Your task to perform on an android device: change the clock style Image 0: 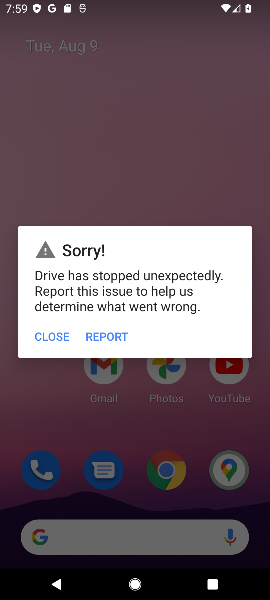
Step 0: click (69, 415)
Your task to perform on an android device: change the clock style Image 1: 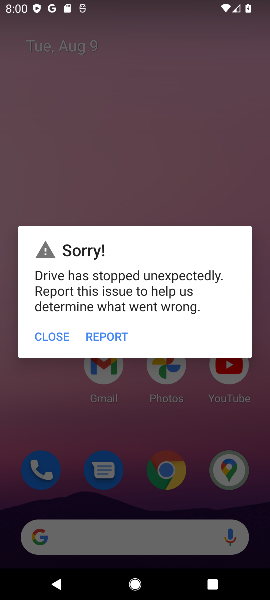
Step 1: click (47, 340)
Your task to perform on an android device: change the clock style Image 2: 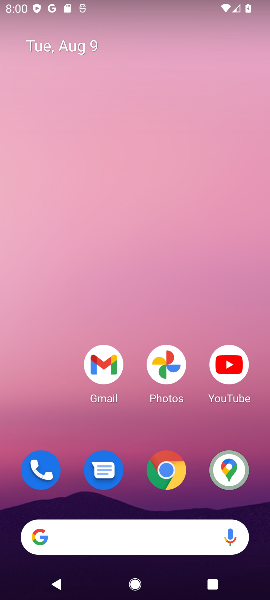
Step 2: drag from (169, 575) to (197, 153)
Your task to perform on an android device: change the clock style Image 3: 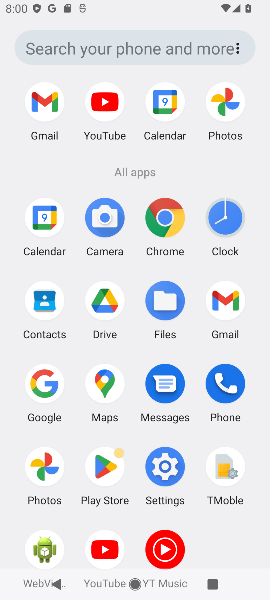
Step 3: click (216, 218)
Your task to perform on an android device: change the clock style Image 4: 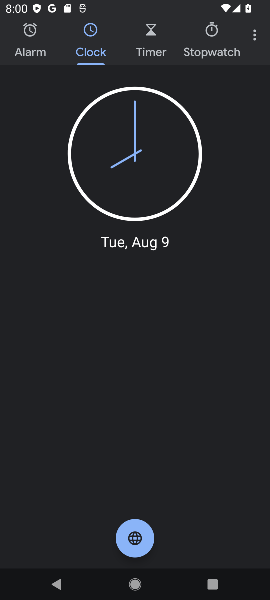
Step 4: click (255, 30)
Your task to perform on an android device: change the clock style Image 5: 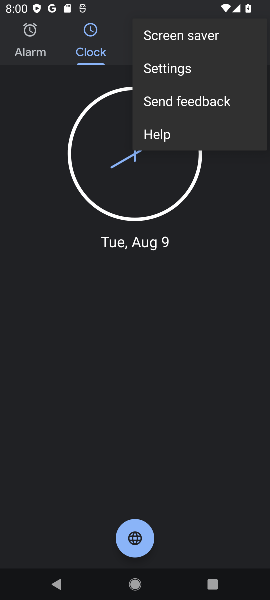
Step 5: click (168, 76)
Your task to perform on an android device: change the clock style Image 6: 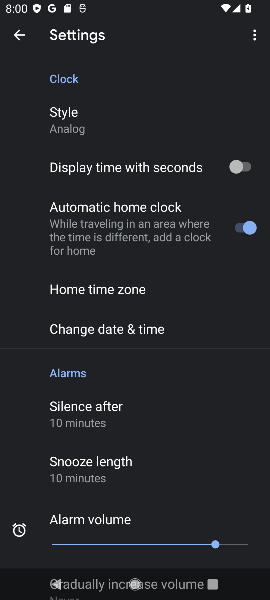
Step 6: click (62, 135)
Your task to perform on an android device: change the clock style Image 7: 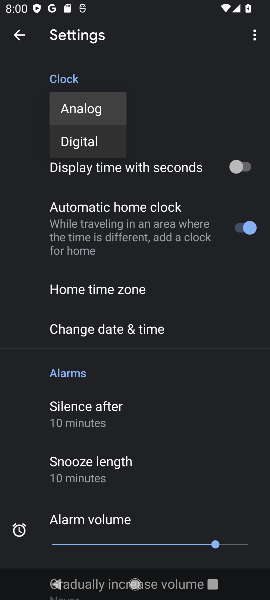
Step 7: click (108, 148)
Your task to perform on an android device: change the clock style Image 8: 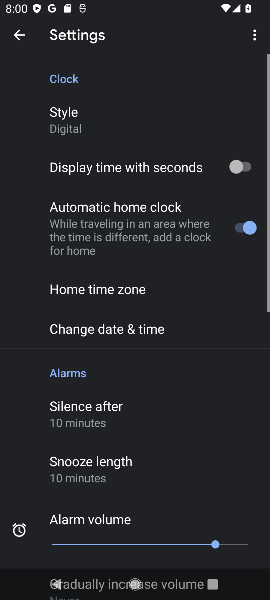
Step 8: task complete